Your task to perform on an android device: Go to Yahoo.com Image 0: 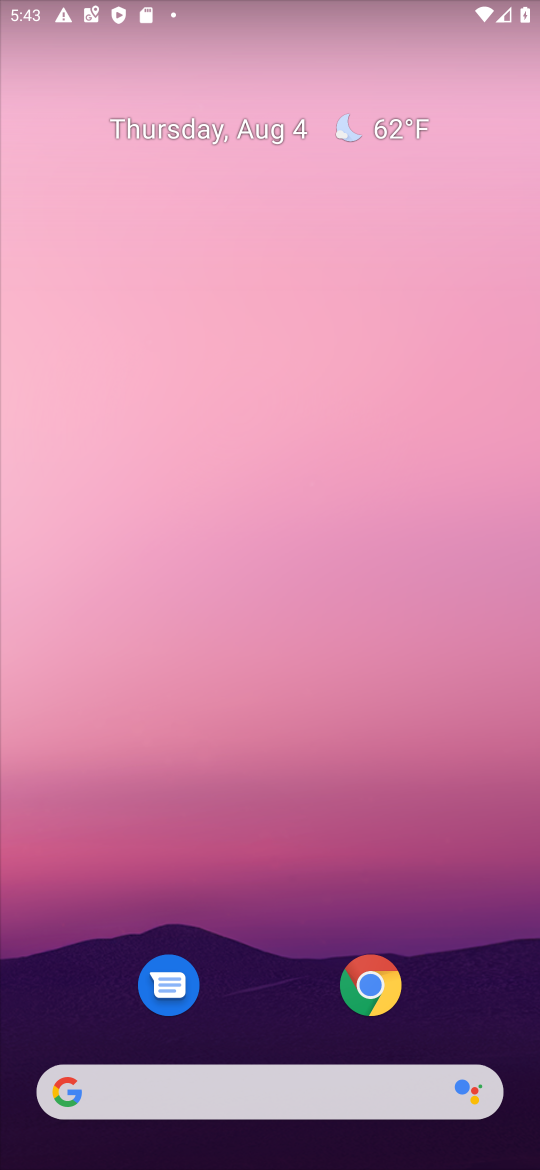
Step 0: click (363, 1006)
Your task to perform on an android device: Go to Yahoo.com Image 1: 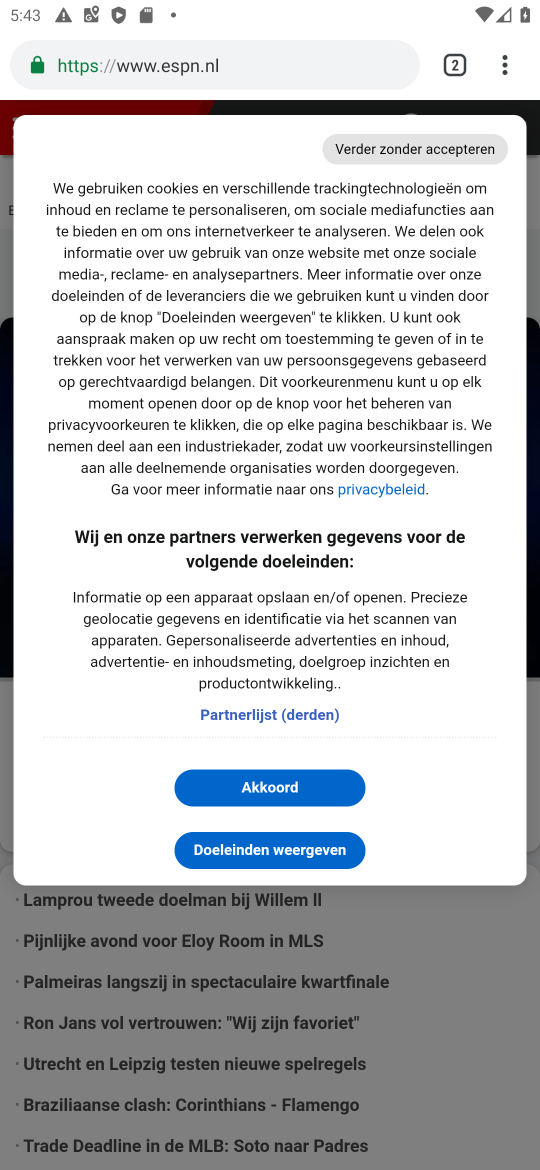
Step 1: click (187, 66)
Your task to perform on an android device: Go to Yahoo.com Image 2: 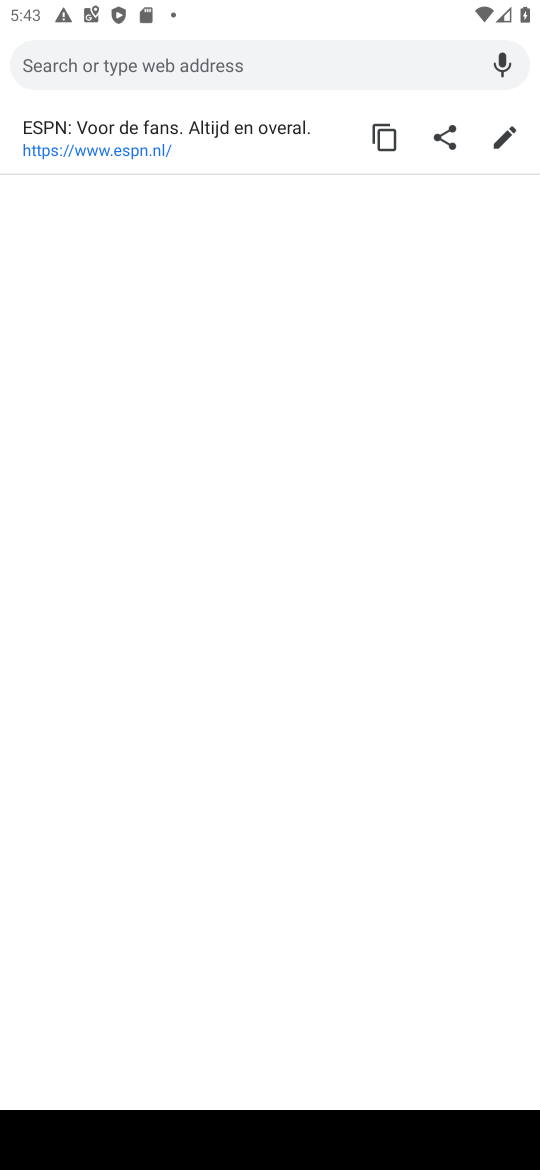
Step 2: type "yahoo.com"
Your task to perform on an android device: Go to Yahoo.com Image 3: 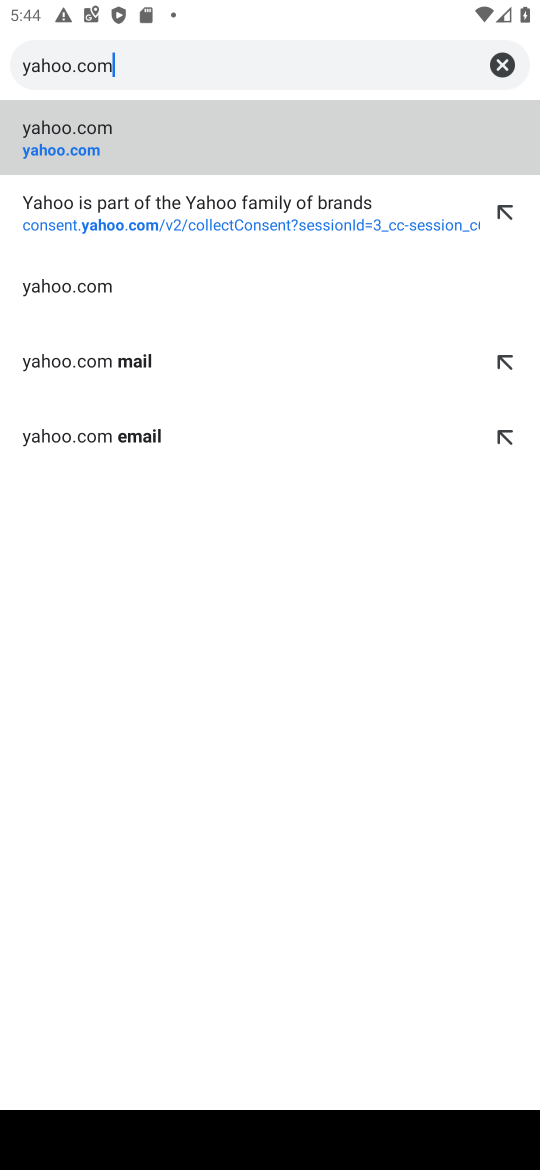
Step 3: click (165, 133)
Your task to perform on an android device: Go to Yahoo.com Image 4: 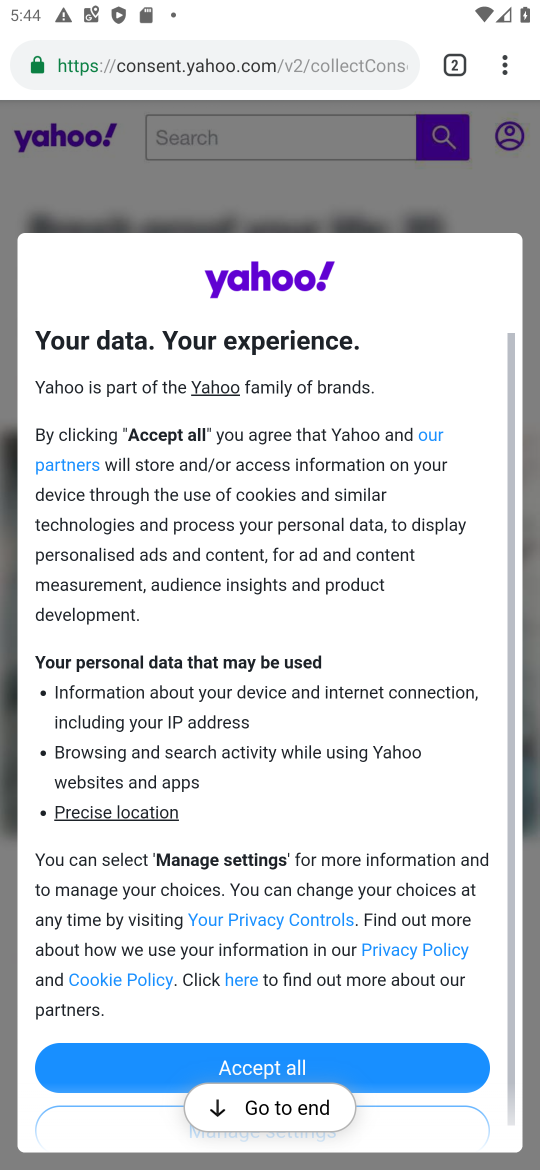
Step 4: click (399, 1085)
Your task to perform on an android device: Go to Yahoo.com Image 5: 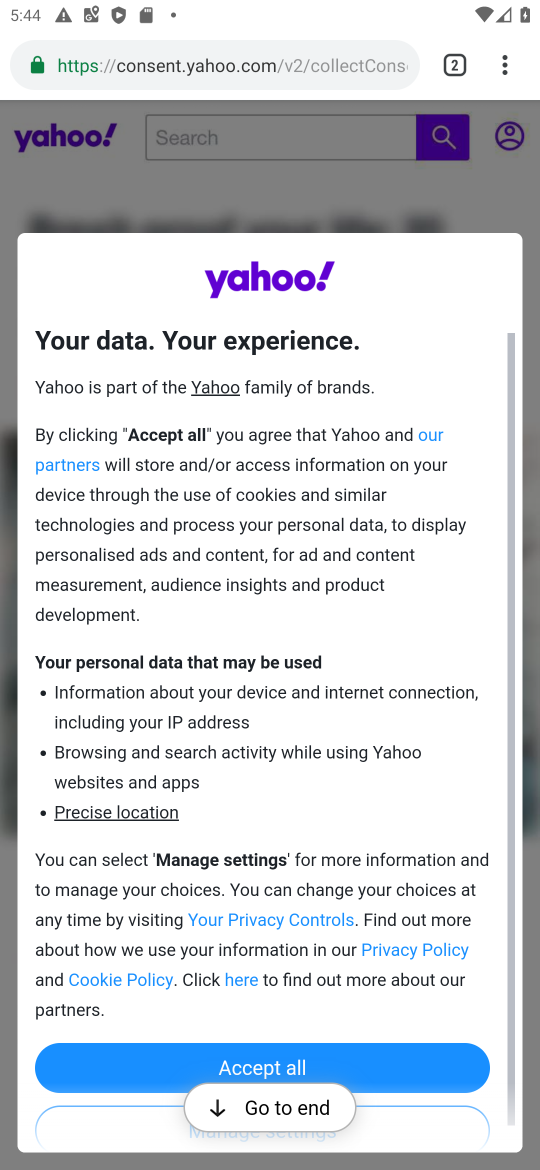
Step 5: click (358, 1074)
Your task to perform on an android device: Go to Yahoo.com Image 6: 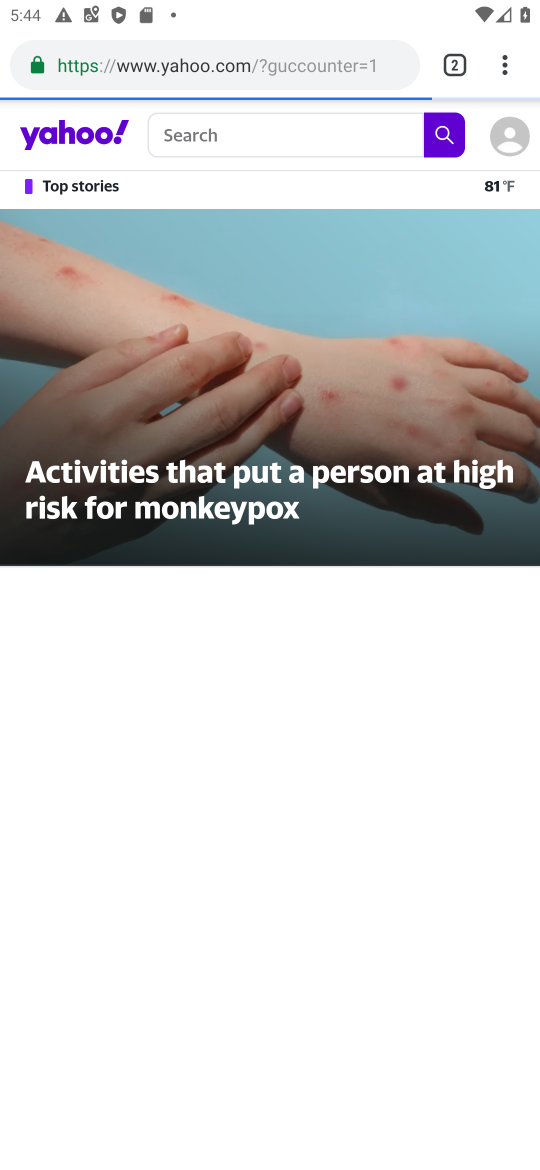
Step 6: task complete